Your task to perform on an android device: Do I have any events today? Image 0: 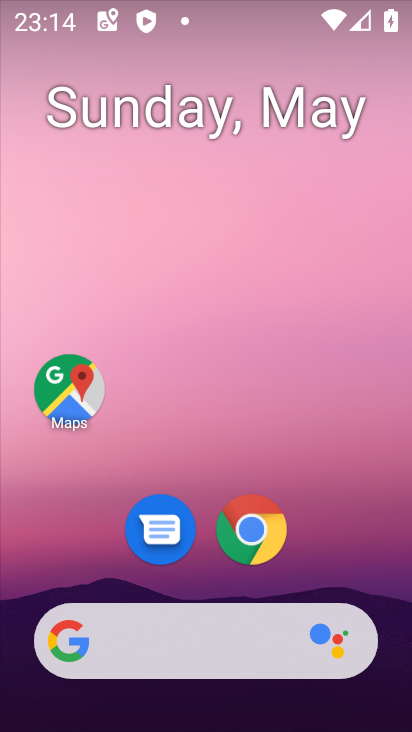
Step 0: drag from (382, 572) to (319, 21)
Your task to perform on an android device: Do I have any events today? Image 1: 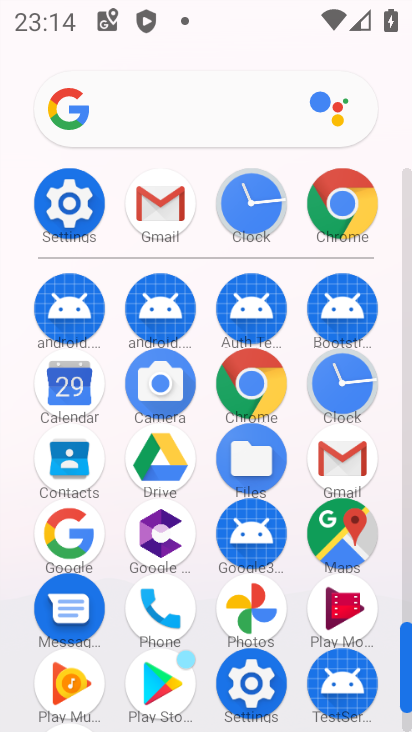
Step 1: click (59, 389)
Your task to perform on an android device: Do I have any events today? Image 2: 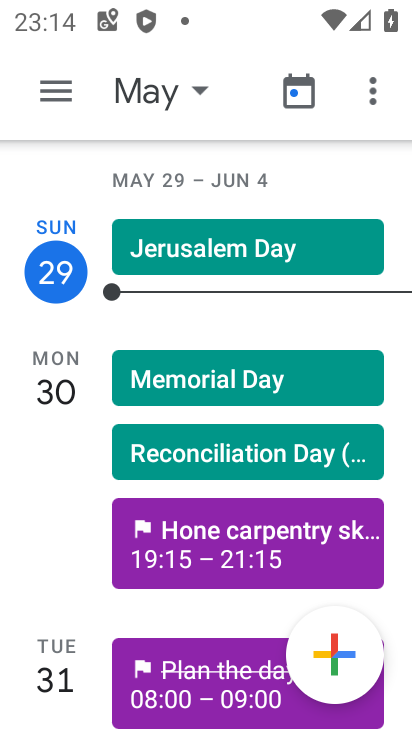
Step 2: task complete